Your task to perform on an android device: Do I have any events this weekend? Image 0: 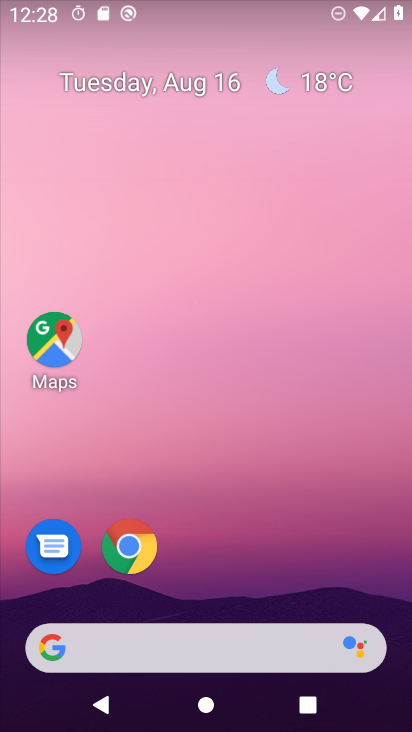
Step 0: drag from (205, 617) to (174, 104)
Your task to perform on an android device: Do I have any events this weekend? Image 1: 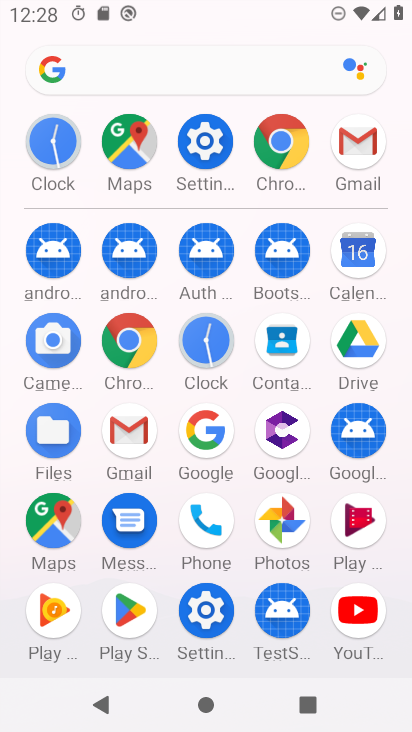
Step 1: click (364, 254)
Your task to perform on an android device: Do I have any events this weekend? Image 2: 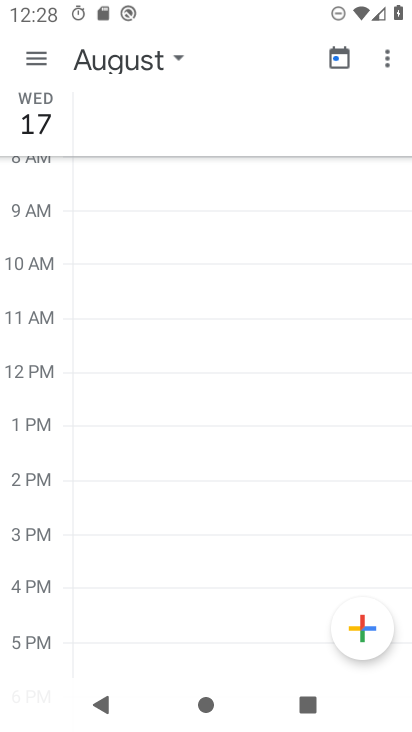
Step 2: click (173, 58)
Your task to perform on an android device: Do I have any events this weekend? Image 3: 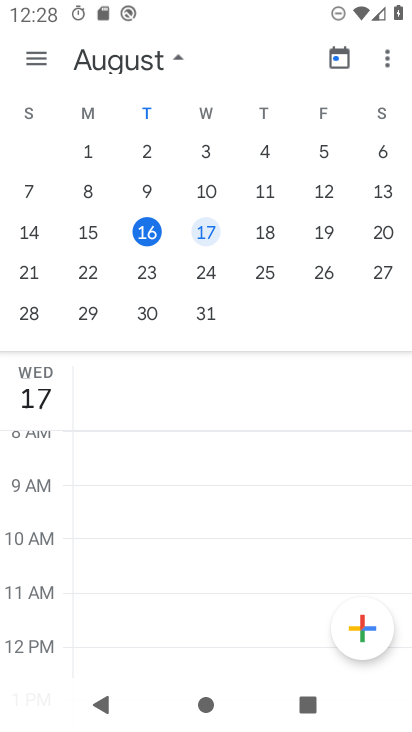
Step 3: click (42, 60)
Your task to perform on an android device: Do I have any events this weekend? Image 4: 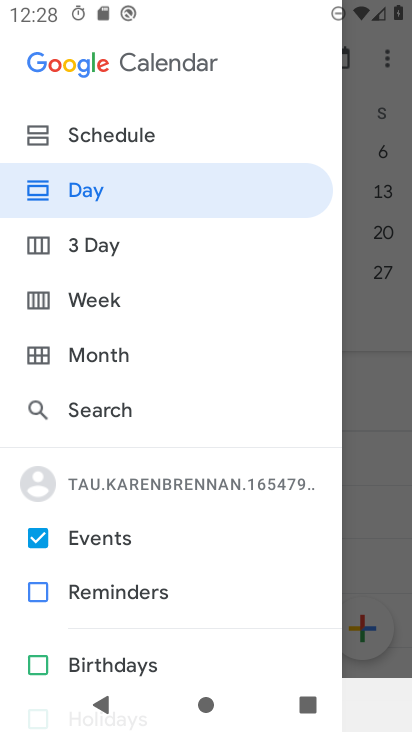
Step 4: click (120, 299)
Your task to perform on an android device: Do I have any events this weekend? Image 5: 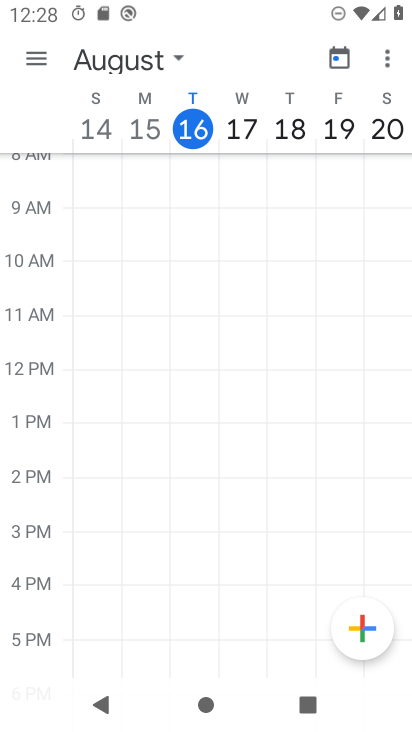
Step 5: drag from (386, 117) to (250, 110)
Your task to perform on an android device: Do I have any events this weekend? Image 6: 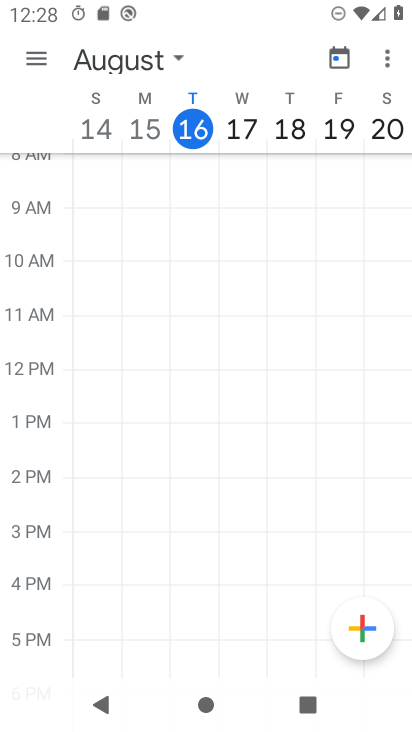
Step 6: click (379, 125)
Your task to perform on an android device: Do I have any events this weekend? Image 7: 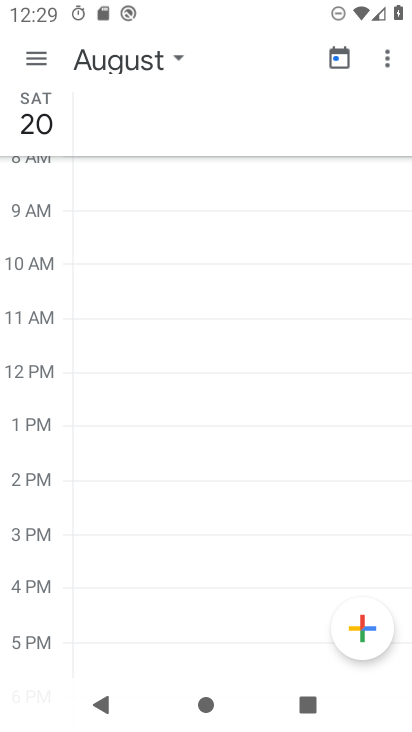
Step 7: task complete